Your task to perform on an android device: open app "Google Translate" (install if not already installed) Image 0: 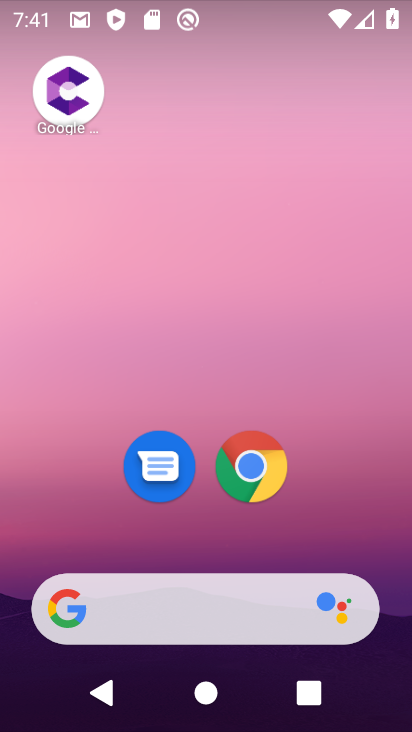
Step 0: drag from (205, 541) to (269, 83)
Your task to perform on an android device: open app "Google Translate" (install if not already installed) Image 1: 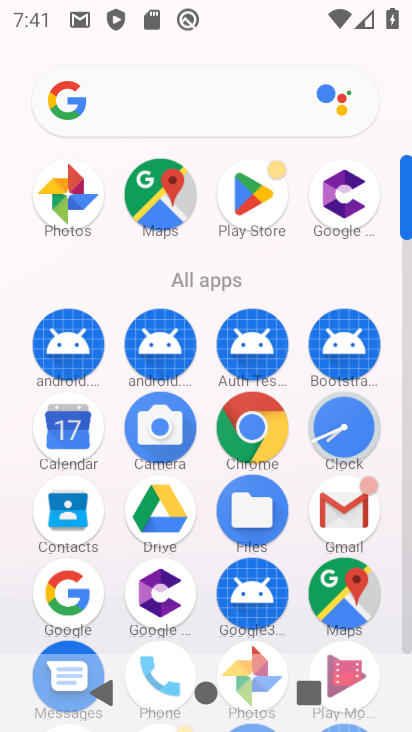
Step 1: click (272, 185)
Your task to perform on an android device: open app "Google Translate" (install if not already installed) Image 2: 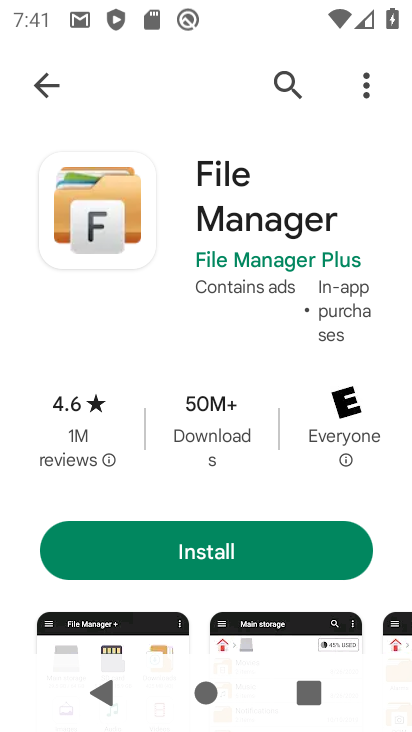
Step 2: click (42, 80)
Your task to perform on an android device: open app "Google Translate" (install if not already installed) Image 3: 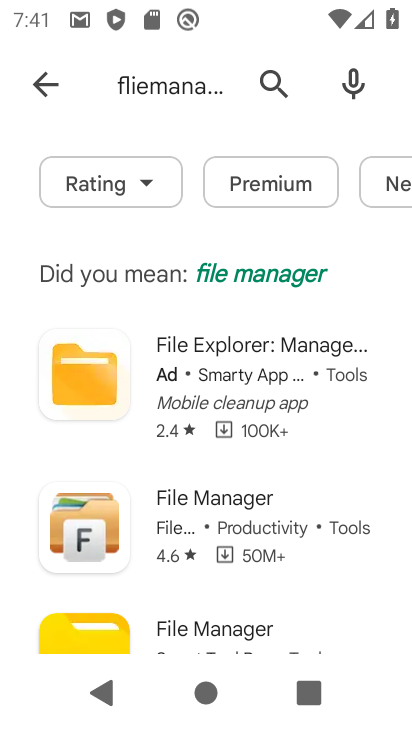
Step 3: click (141, 72)
Your task to perform on an android device: open app "Google Translate" (install if not already installed) Image 4: 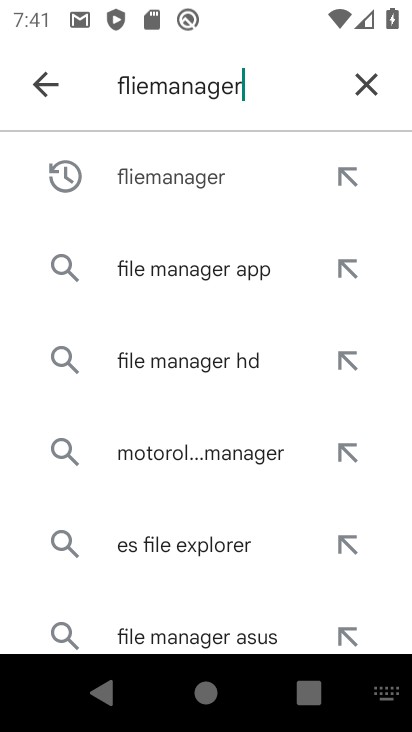
Step 4: click (358, 77)
Your task to perform on an android device: open app "Google Translate" (install if not already installed) Image 5: 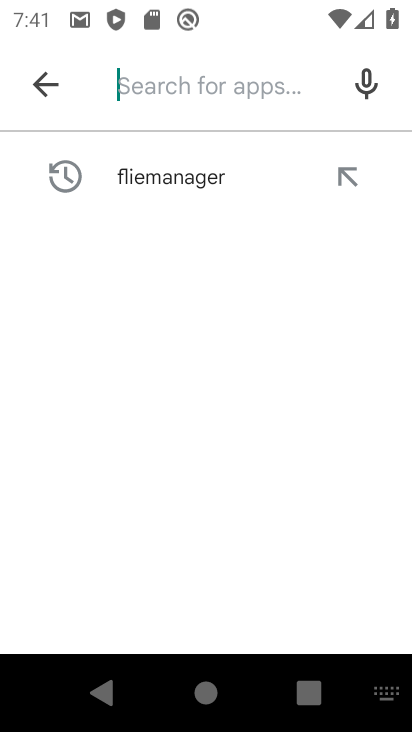
Step 5: type "google translate"
Your task to perform on an android device: open app "Google Translate" (install if not already installed) Image 6: 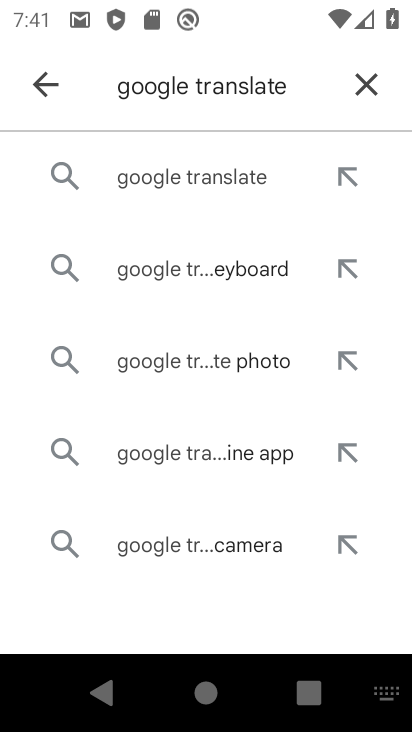
Step 6: click (162, 177)
Your task to perform on an android device: open app "Google Translate" (install if not already installed) Image 7: 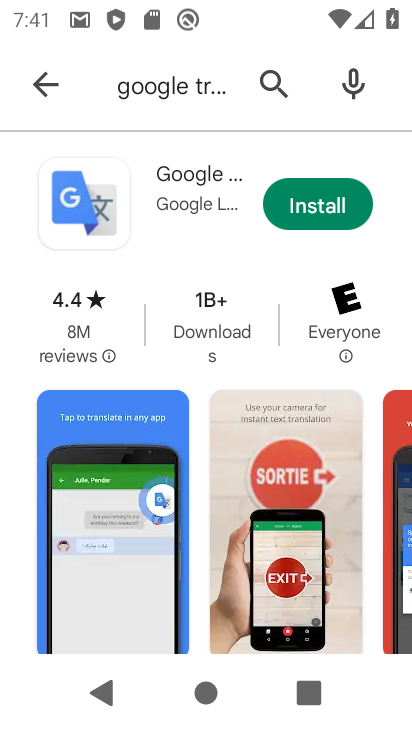
Step 7: click (321, 203)
Your task to perform on an android device: open app "Google Translate" (install if not already installed) Image 8: 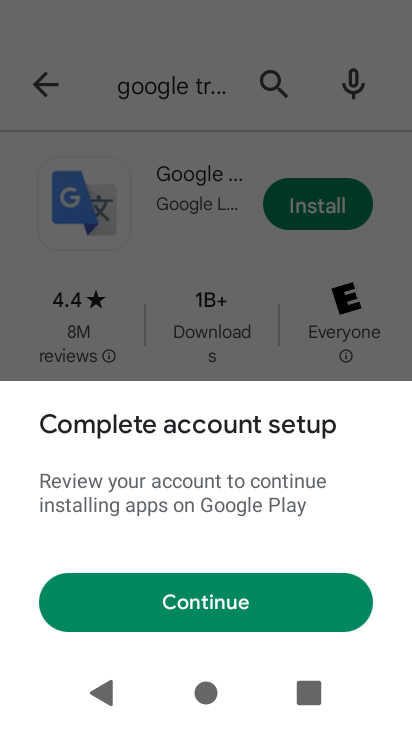
Step 8: click (240, 604)
Your task to perform on an android device: open app "Google Translate" (install if not already installed) Image 9: 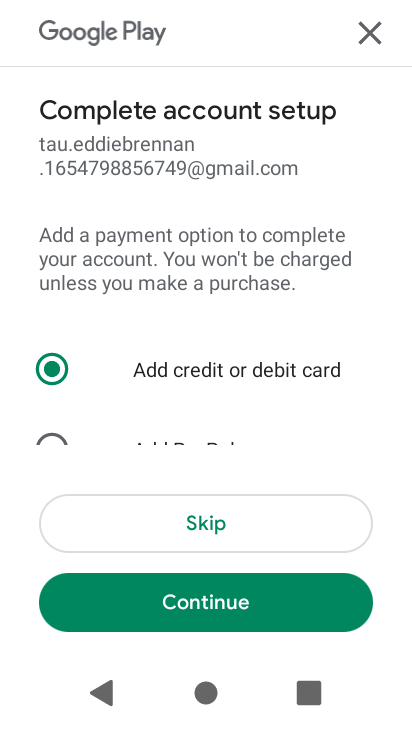
Step 9: click (203, 526)
Your task to perform on an android device: open app "Google Translate" (install if not already installed) Image 10: 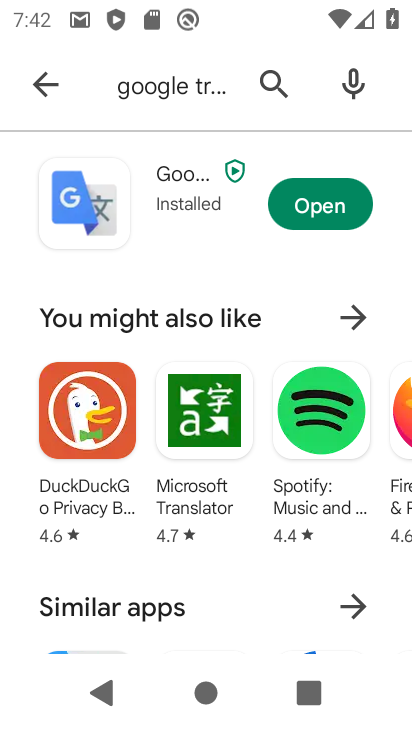
Step 10: click (332, 200)
Your task to perform on an android device: open app "Google Translate" (install if not already installed) Image 11: 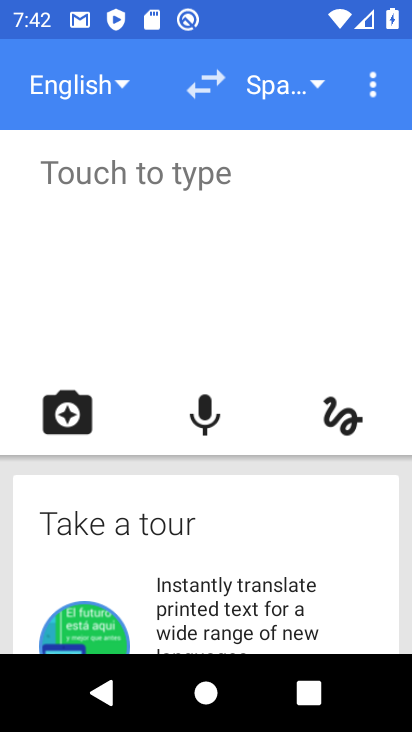
Step 11: task complete